Your task to perform on an android device: delete the emails in spam in the gmail app Image 0: 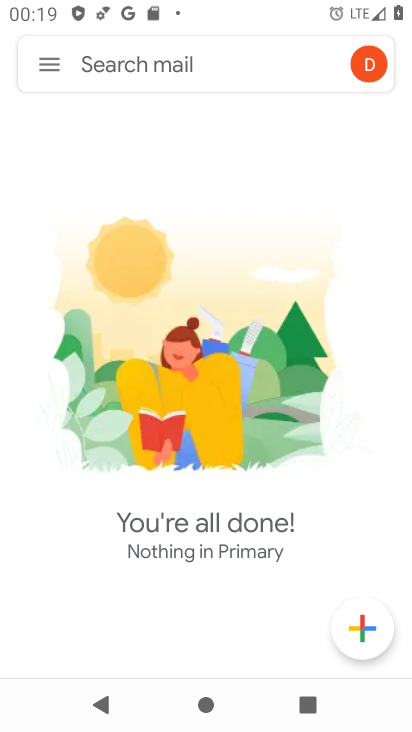
Step 0: click (63, 59)
Your task to perform on an android device: delete the emails in spam in the gmail app Image 1: 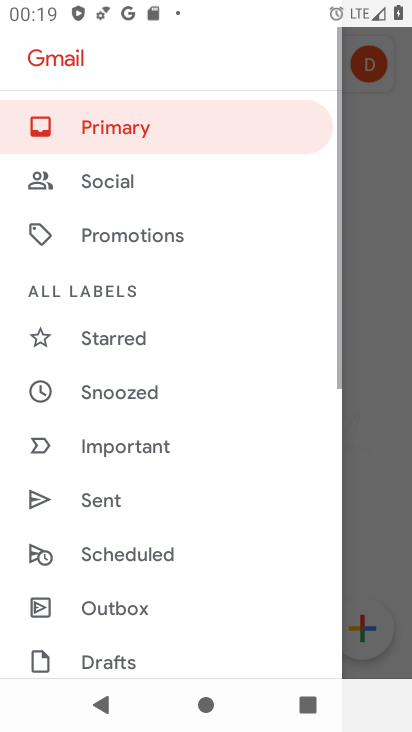
Step 1: drag from (180, 561) to (207, 108)
Your task to perform on an android device: delete the emails in spam in the gmail app Image 2: 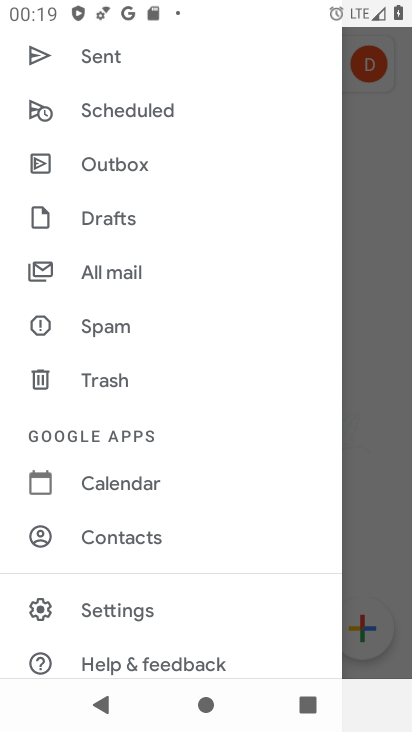
Step 2: click (124, 606)
Your task to perform on an android device: delete the emails in spam in the gmail app Image 3: 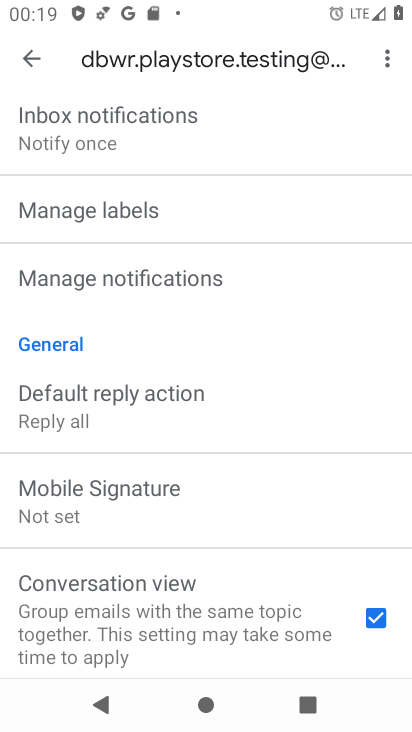
Step 3: click (24, 55)
Your task to perform on an android device: delete the emails in spam in the gmail app Image 4: 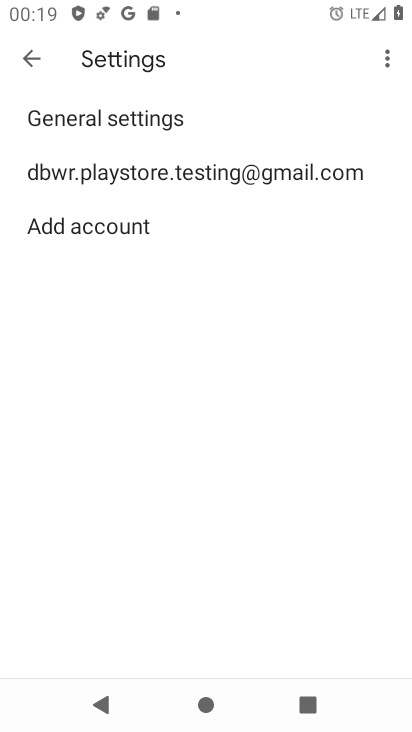
Step 4: click (34, 61)
Your task to perform on an android device: delete the emails in spam in the gmail app Image 5: 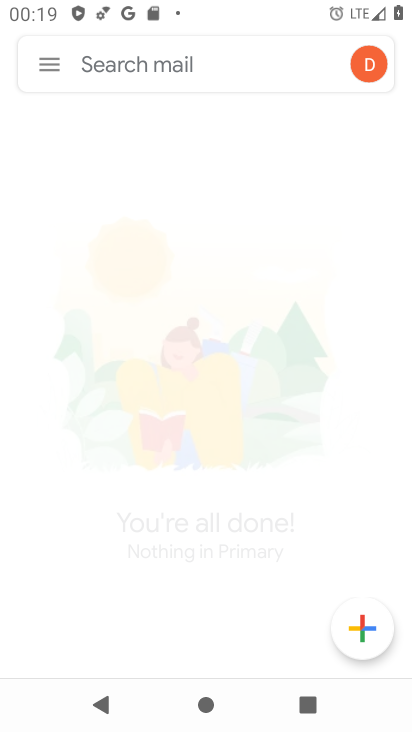
Step 5: click (34, 61)
Your task to perform on an android device: delete the emails in spam in the gmail app Image 6: 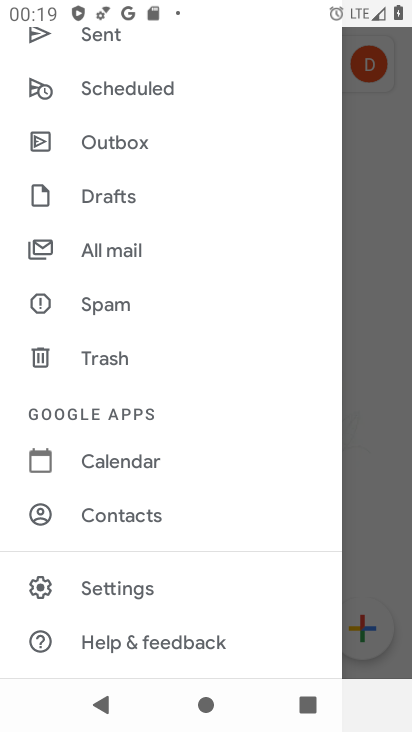
Step 6: click (117, 302)
Your task to perform on an android device: delete the emails in spam in the gmail app Image 7: 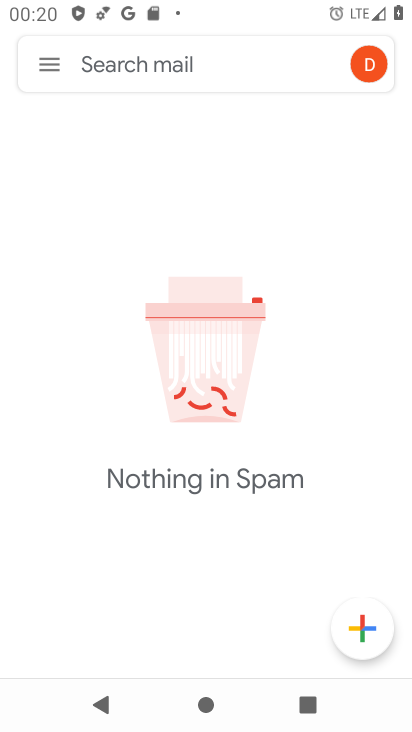
Step 7: task complete